Your task to perform on an android device: What is the news today? Image 0: 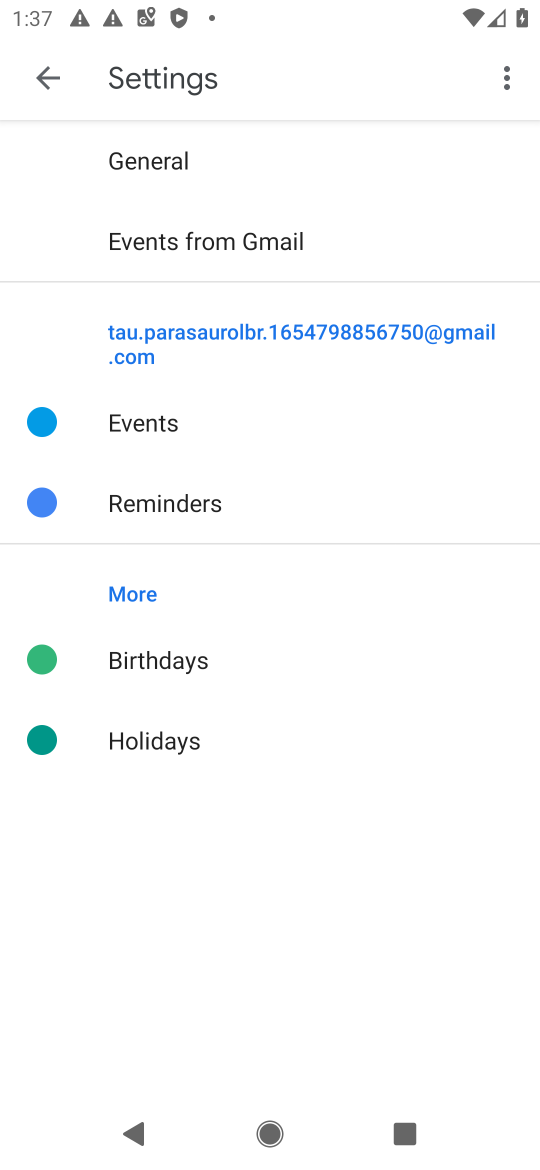
Step 0: press home button
Your task to perform on an android device: What is the news today? Image 1: 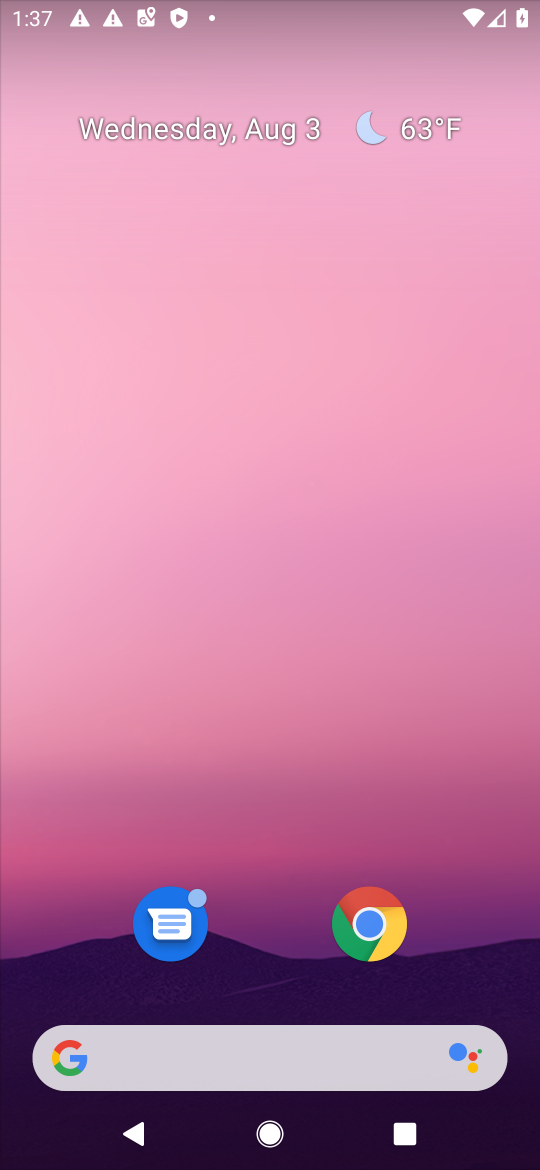
Step 1: task complete